Your task to perform on an android device: Open Youtube and go to the subscriptions tab Image 0: 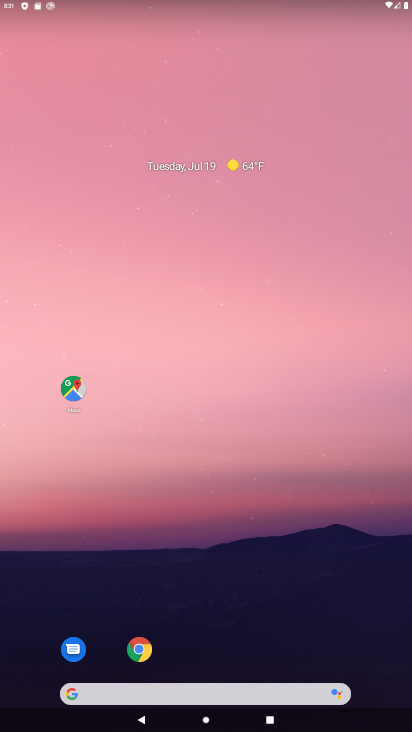
Step 0: drag from (247, 628) to (272, 165)
Your task to perform on an android device: Open Youtube and go to the subscriptions tab Image 1: 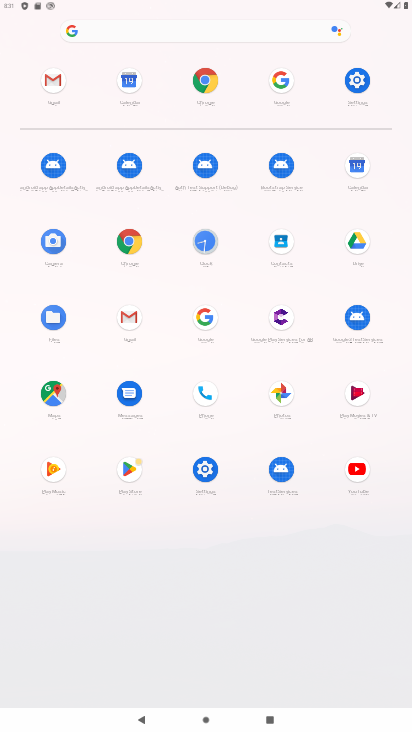
Step 1: click (355, 484)
Your task to perform on an android device: Open Youtube and go to the subscriptions tab Image 2: 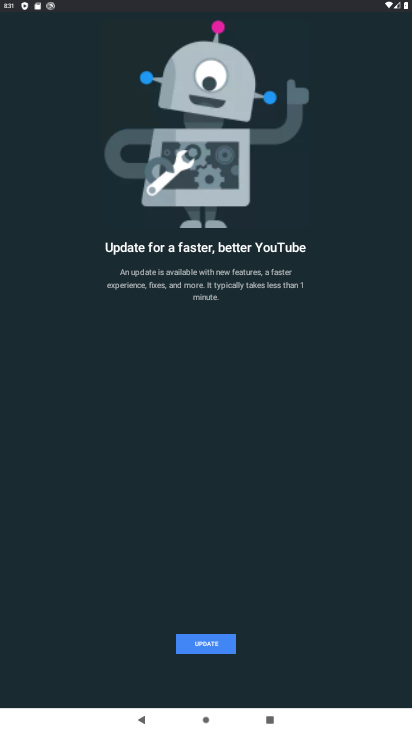
Step 2: click (222, 645)
Your task to perform on an android device: Open Youtube and go to the subscriptions tab Image 3: 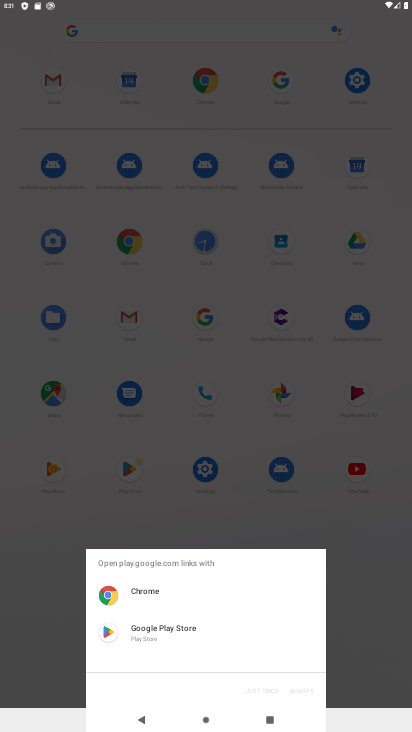
Step 3: click (224, 644)
Your task to perform on an android device: Open Youtube and go to the subscriptions tab Image 4: 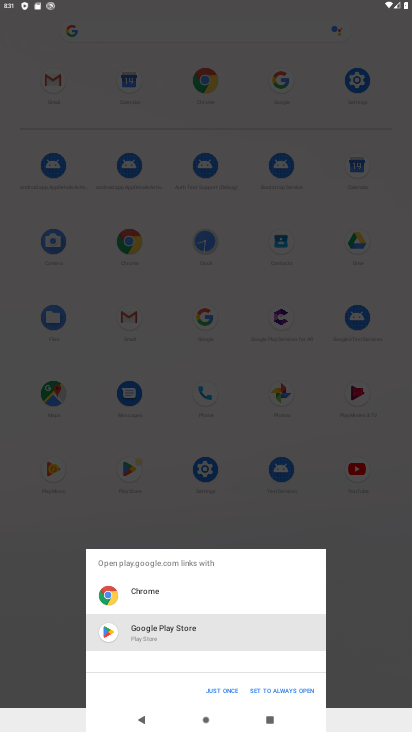
Step 4: click (224, 690)
Your task to perform on an android device: Open Youtube and go to the subscriptions tab Image 5: 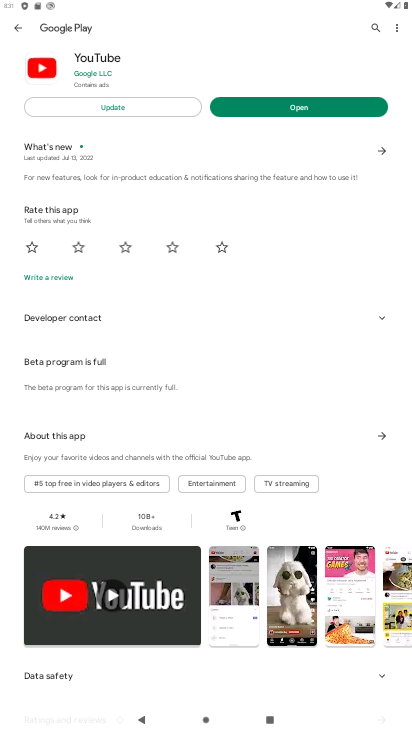
Step 5: click (91, 106)
Your task to perform on an android device: Open Youtube and go to the subscriptions tab Image 6: 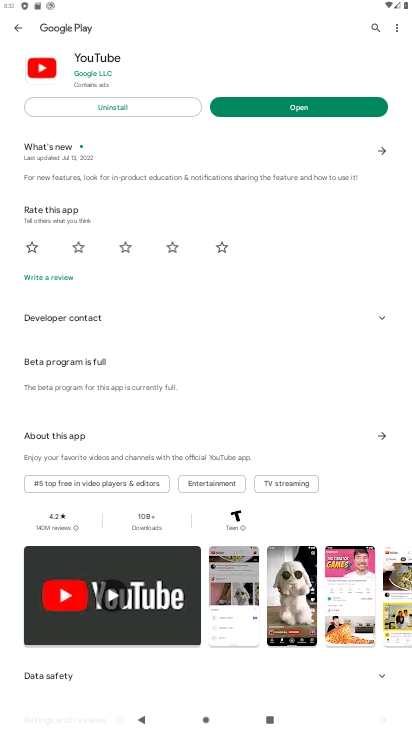
Step 6: click (269, 110)
Your task to perform on an android device: Open Youtube and go to the subscriptions tab Image 7: 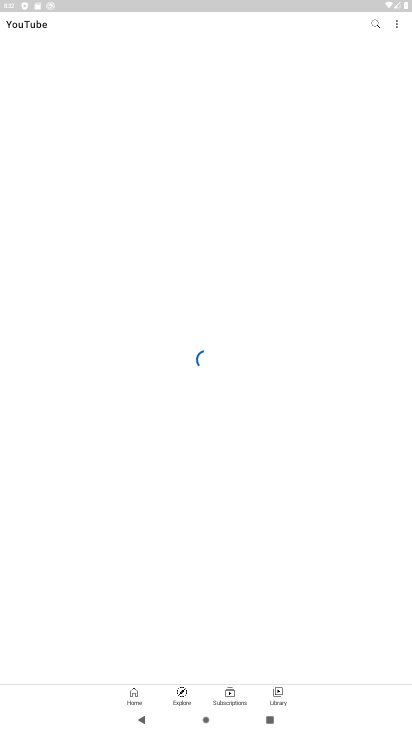
Step 7: click (229, 693)
Your task to perform on an android device: Open Youtube and go to the subscriptions tab Image 8: 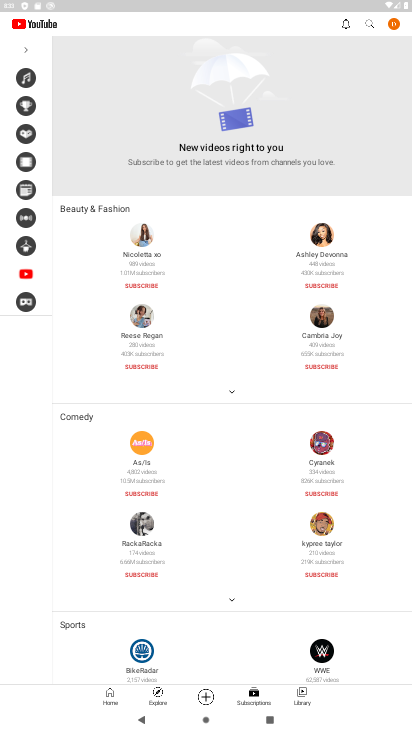
Step 8: task complete